Your task to perform on an android device: Go to Reddit.com Image 0: 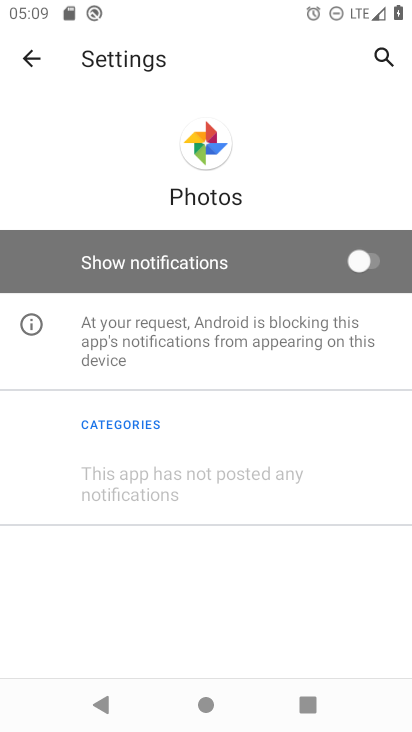
Step 0: press home button
Your task to perform on an android device: Go to Reddit.com Image 1: 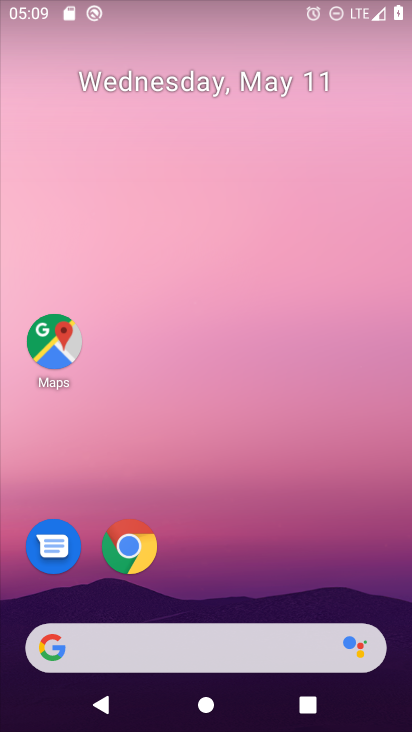
Step 1: drag from (316, 630) to (291, 6)
Your task to perform on an android device: Go to Reddit.com Image 2: 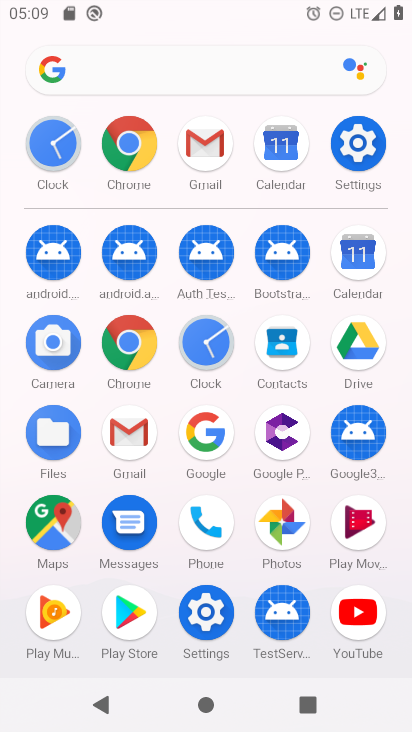
Step 2: click (145, 339)
Your task to perform on an android device: Go to Reddit.com Image 3: 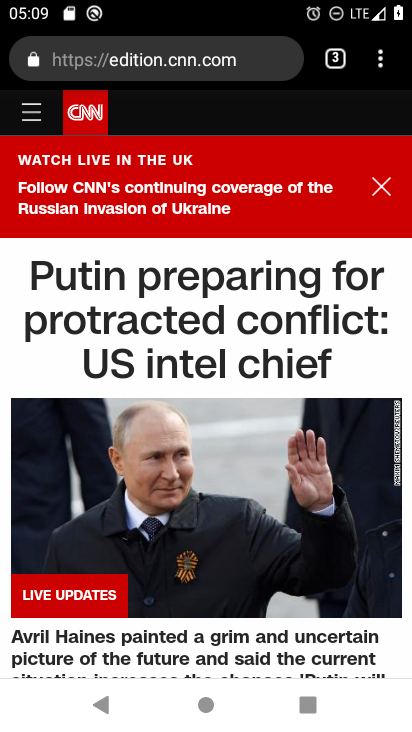
Step 3: click (256, 64)
Your task to perform on an android device: Go to Reddit.com Image 4: 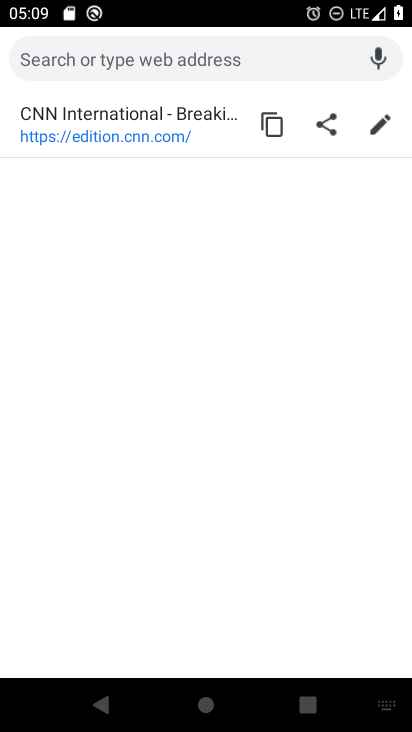
Step 4: type "reddit.com"
Your task to perform on an android device: Go to Reddit.com Image 5: 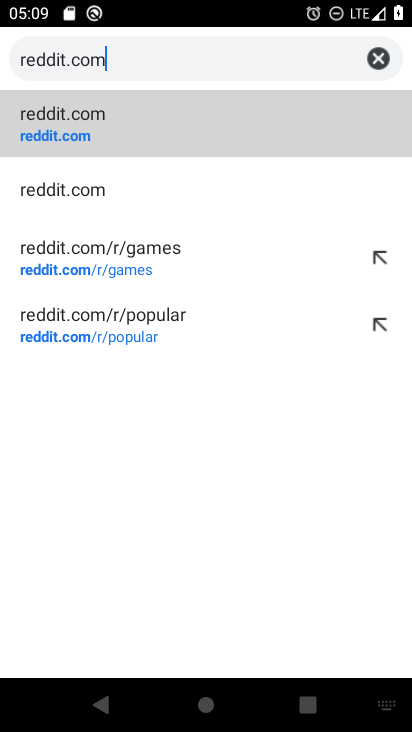
Step 5: click (77, 109)
Your task to perform on an android device: Go to Reddit.com Image 6: 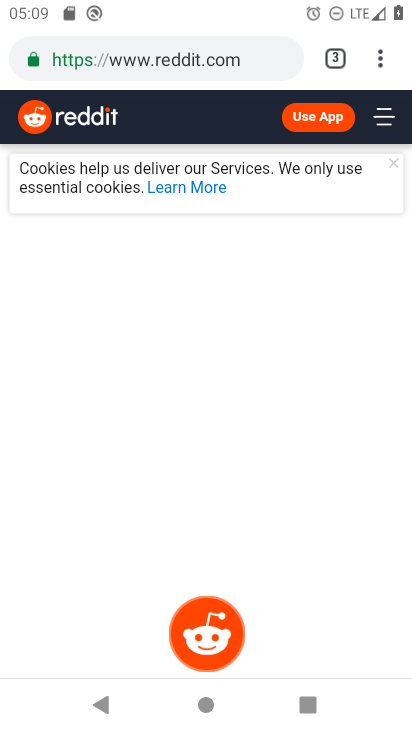
Step 6: task complete